Your task to perform on an android device: Open Google Chrome and click the shortcut for Amazon.com Image 0: 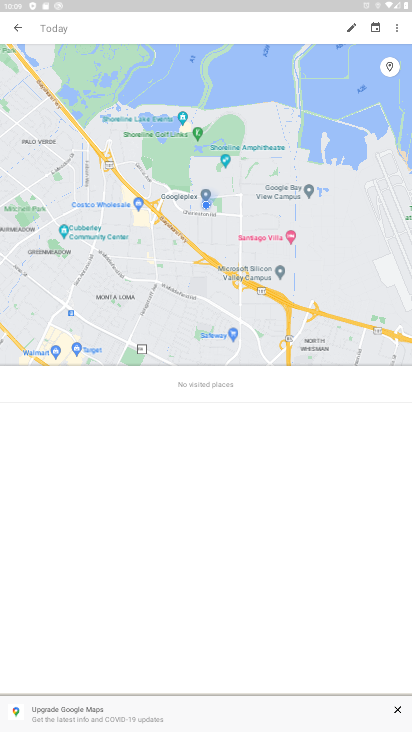
Step 0: press home button
Your task to perform on an android device: Open Google Chrome and click the shortcut for Amazon.com Image 1: 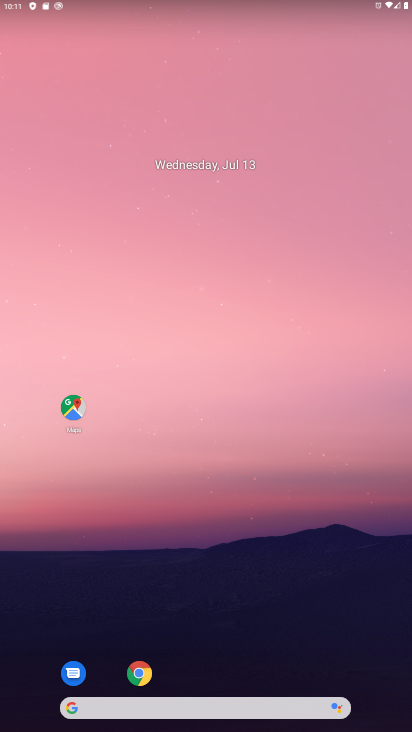
Step 1: click (145, 675)
Your task to perform on an android device: Open Google Chrome and click the shortcut for Amazon.com Image 2: 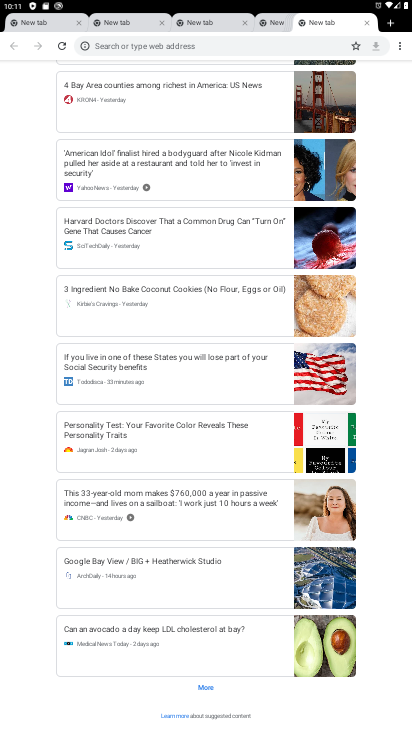
Step 2: drag from (237, 119) to (272, 571)
Your task to perform on an android device: Open Google Chrome and click the shortcut for Amazon.com Image 3: 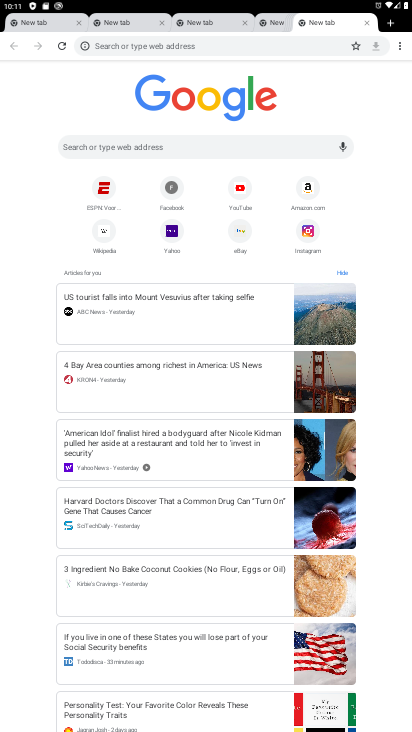
Step 3: click (309, 182)
Your task to perform on an android device: Open Google Chrome and click the shortcut for Amazon.com Image 4: 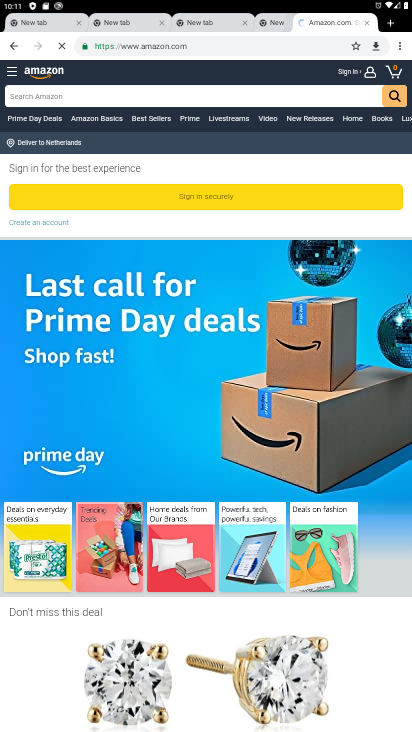
Step 4: task complete